Your task to perform on an android device: Turn on the flashlight Image 0: 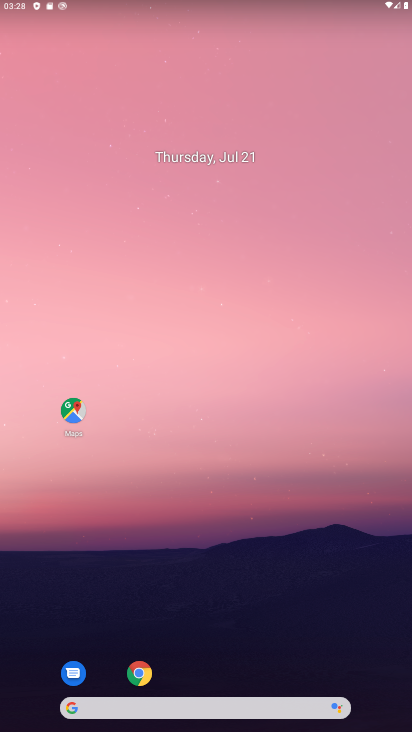
Step 0: drag from (313, 594) to (211, 67)
Your task to perform on an android device: Turn on the flashlight Image 1: 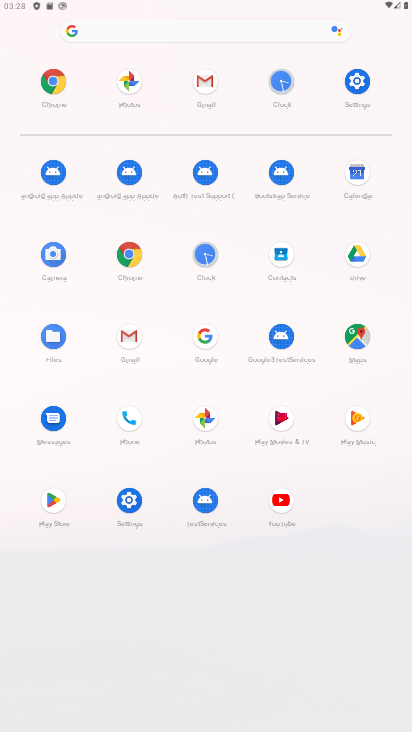
Step 1: click (125, 497)
Your task to perform on an android device: Turn on the flashlight Image 2: 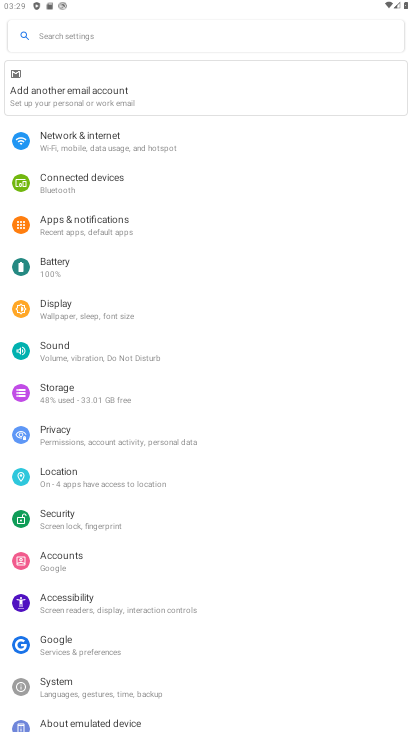
Step 2: click (82, 304)
Your task to perform on an android device: Turn on the flashlight Image 3: 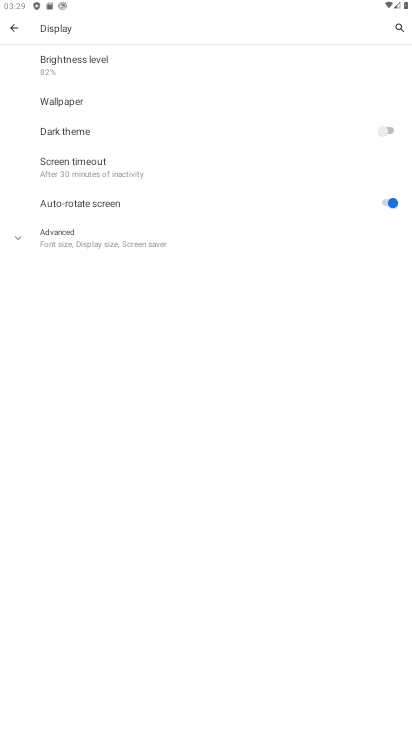
Step 3: task complete